Your task to perform on an android device: Open the calendar app, open the side menu, and click the "Day" option Image 0: 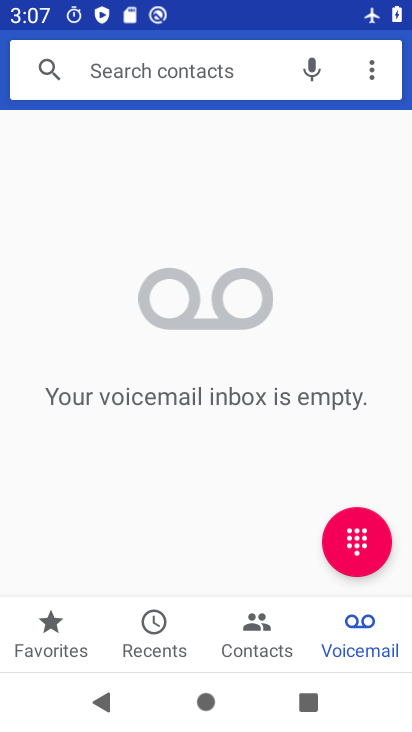
Step 0: press home button
Your task to perform on an android device: Open the calendar app, open the side menu, and click the "Day" option Image 1: 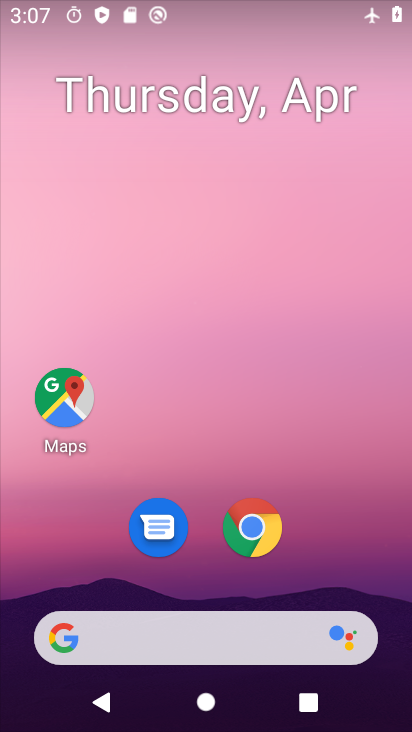
Step 1: drag from (357, 311) to (372, 114)
Your task to perform on an android device: Open the calendar app, open the side menu, and click the "Day" option Image 2: 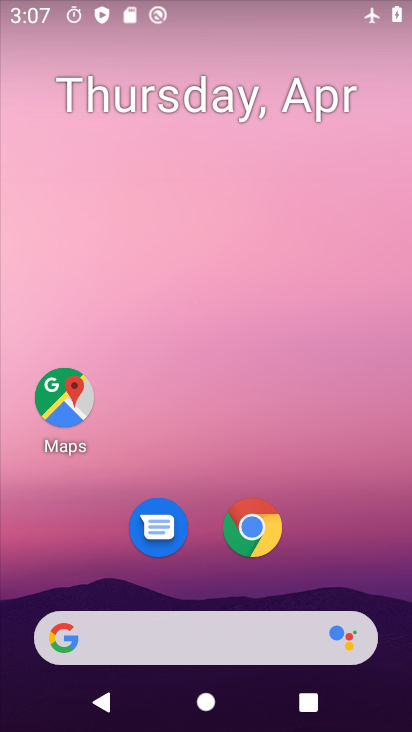
Step 2: drag from (354, 350) to (381, 124)
Your task to perform on an android device: Open the calendar app, open the side menu, and click the "Day" option Image 3: 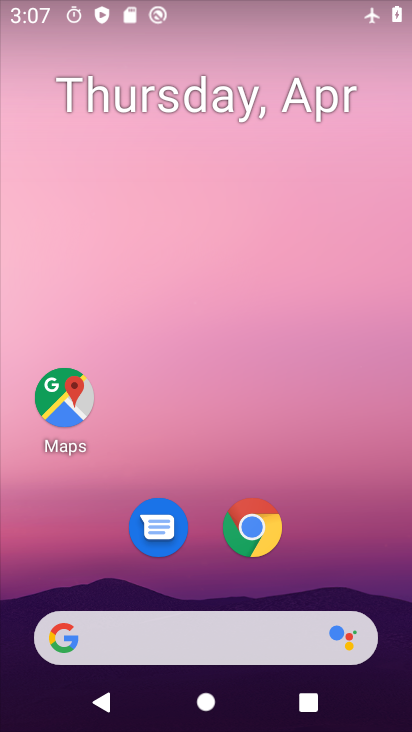
Step 3: drag from (361, 581) to (296, 57)
Your task to perform on an android device: Open the calendar app, open the side menu, and click the "Day" option Image 4: 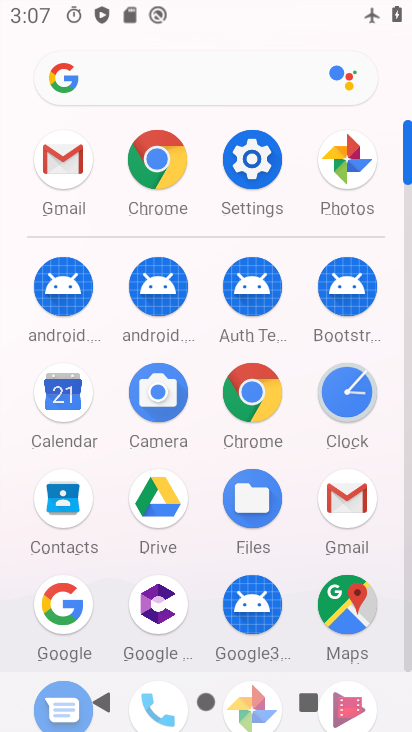
Step 4: click (63, 396)
Your task to perform on an android device: Open the calendar app, open the side menu, and click the "Day" option Image 5: 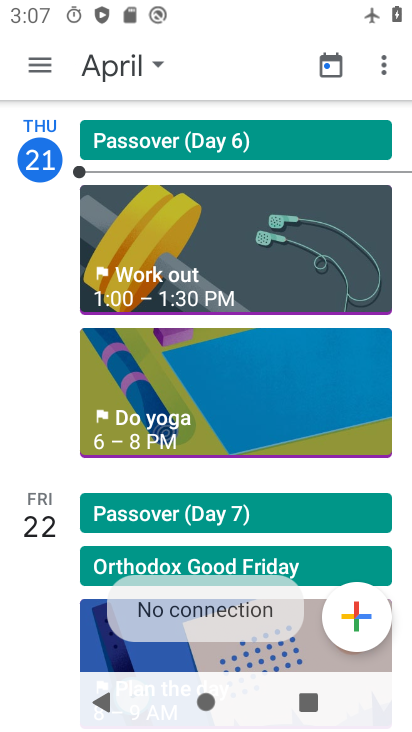
Step 5: click (42, 59)
Your task to perform on an android device: Open the calendar app, open the side menu, and click the "Day" option Image 6: 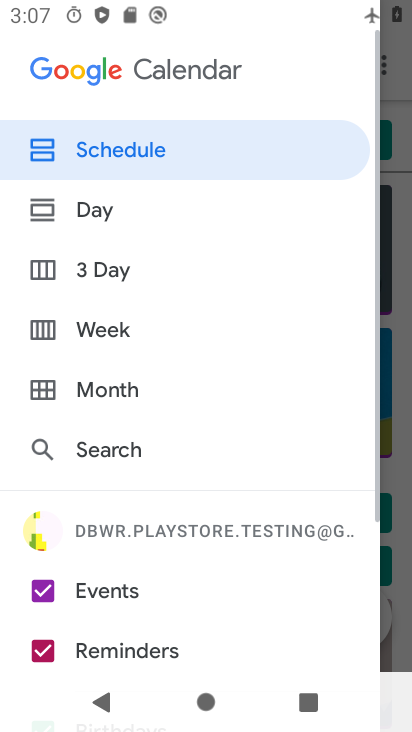
Step 6: click (96, 207)
Your task to perform on an android device: Open the calendar app, open the side menu, and click the "Day" option Image 7: 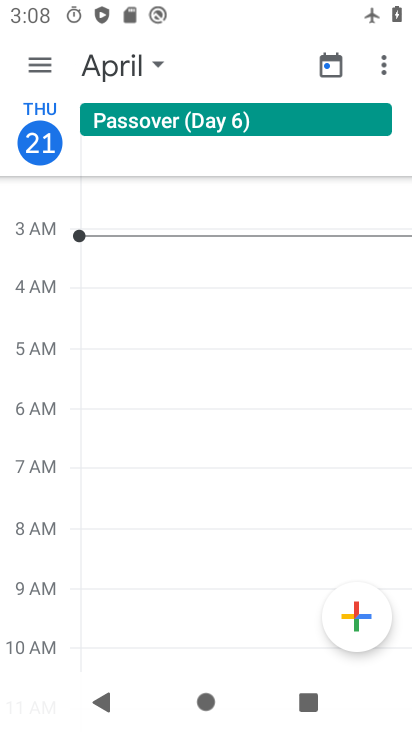
Step 7: task complete